Your task to perform on an android device: turn off smart reply in the gmail app Image 0: 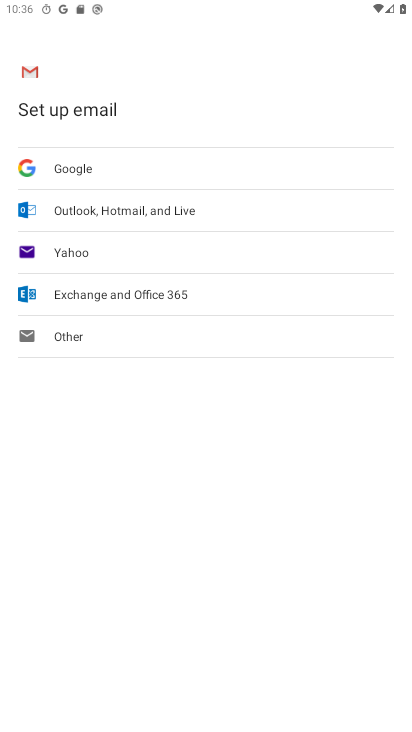
Step 0: press home button
Your task to perform on an android device: turn off smart reply in the gmail app Image 1: 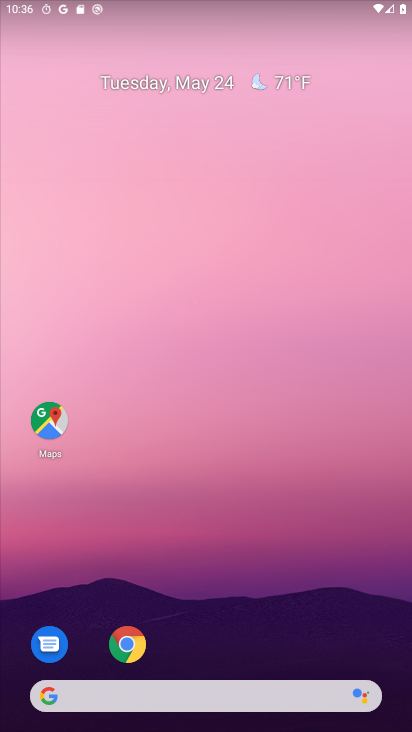
Step 1: click (197, 637)
Your task to perform on an android device: turn off smart reply in the gmail app Image 2: 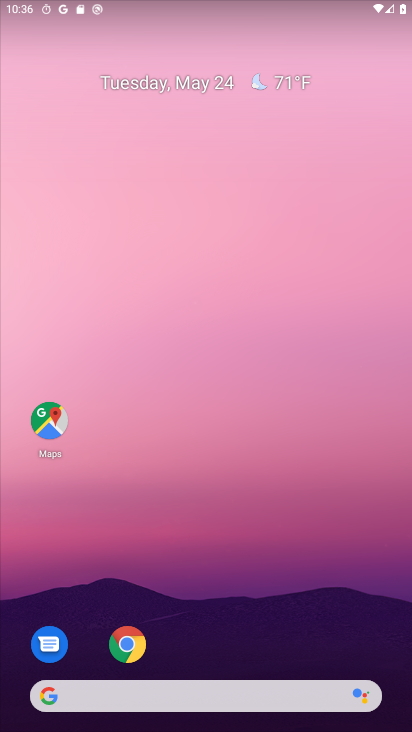
Step 2: drag from (199, 576) to (126, 165)
Your task to perform on an android device: turn off smart reply in the gmail app Image 3: 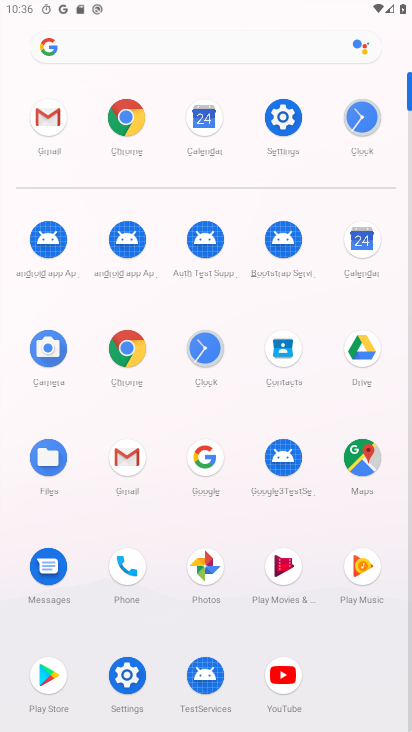
Step 3: click (127, 461)
Your task to perform on an android device: turn off smart reply in the gmail app Image 4: 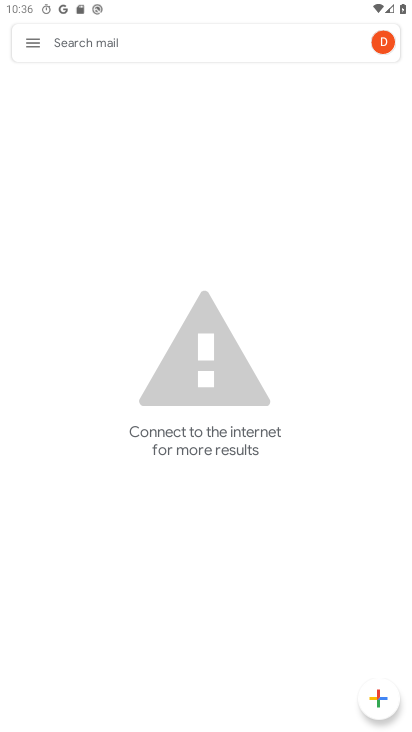
Step 4: click (30, 35)
Your task to perform on an android device: turn off smart reply in the gmail app Image 5: 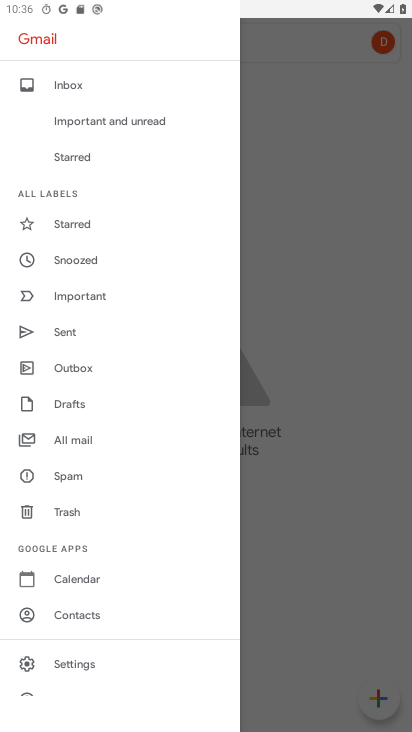
Step 5: click (82, 662)
Your task to perform on an android device: turn off smart reply in the gmail app Image 6: 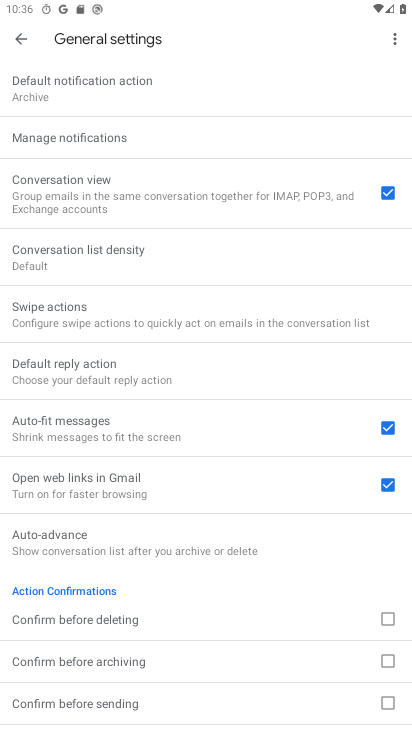
Step 6: click (16, 41)
Your task to perform on an android device: turn off smart reply in the gmail app Image 7: 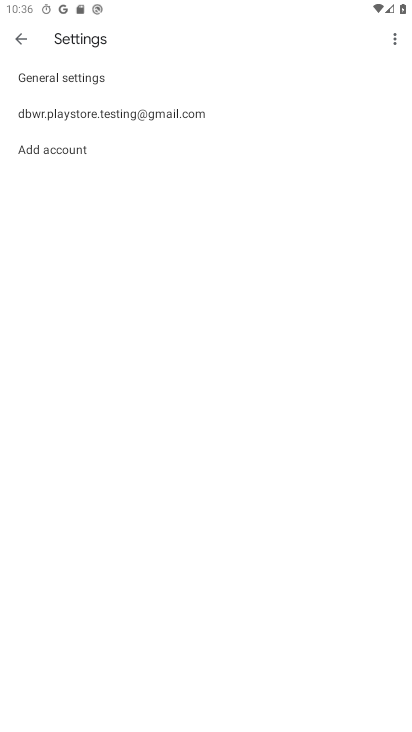
Step 7: click (84, 111)
Your task to perform on an android device: turn off smart reply in the gmail app Image 8: 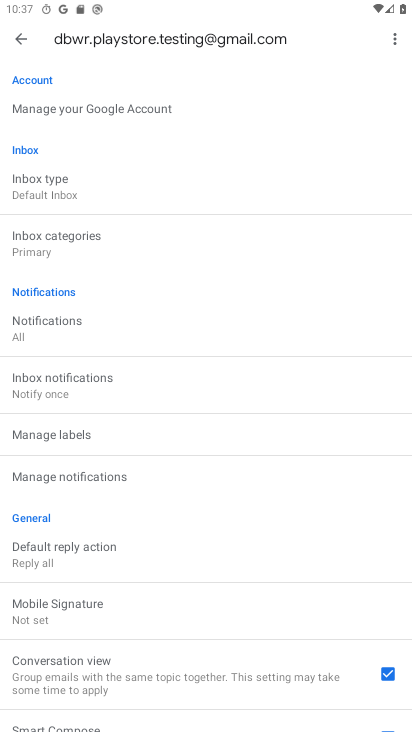
Step 8: drag from (216, 590) to (148, 289)
Your task to perform on an android device: turn off smart reply in the gmail app Image 9: 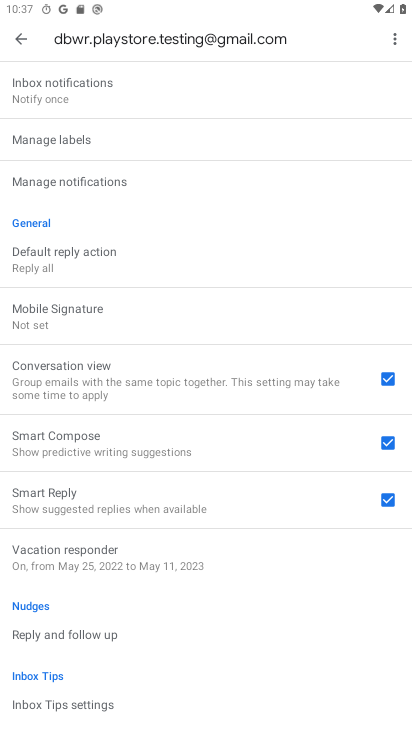
Step 9: click (387, 498)
Your task to perform on an android device: turn off smart reply in the gmail app Image 10: 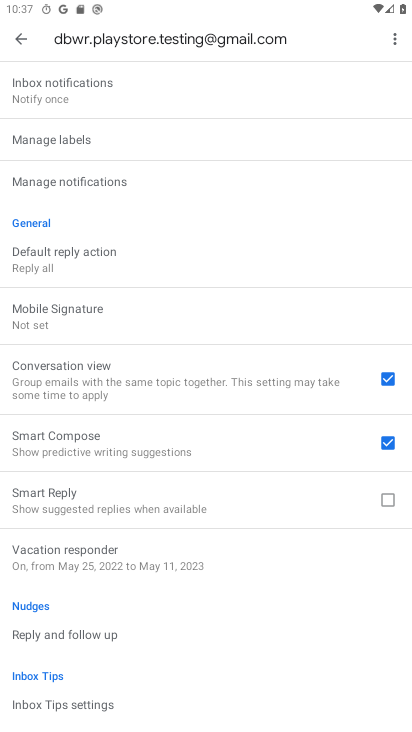
Step 10: task complete